Your task to perform on an android device: Show me popular games on the Play Store Image 0: 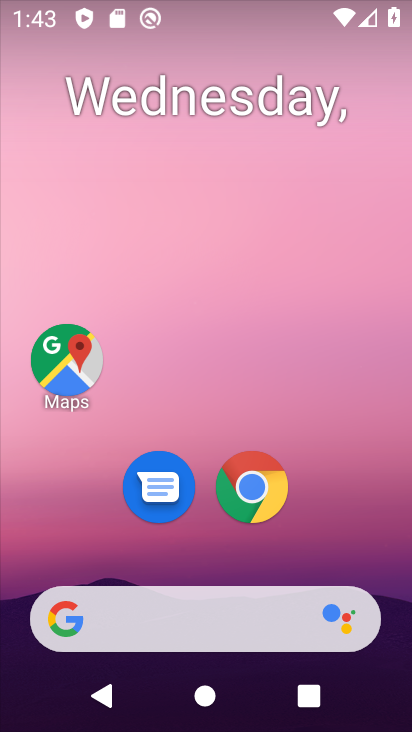
Step 0: drag from (327, 539) to (323, 81)
Your task to perform on an android device: Show me popular games on the Play Store Image 1: 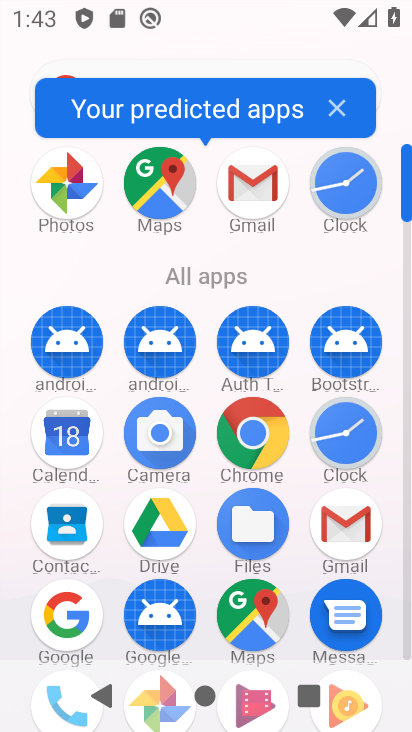
Step 1: drag from (298, 609) to (291, 191)
Your task to perform on an android device: Show me popular games on the Play Store Image 2: 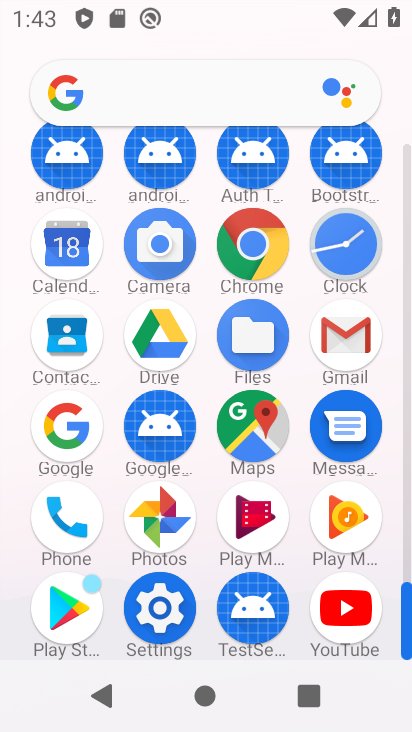
Step 2: click (68, 610)
Your task to perform on an android device: Show me popular games on the Play Store Image 3: 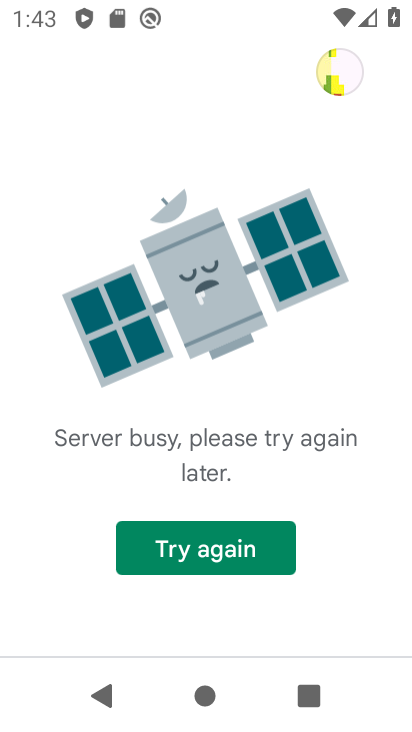
Step 3: task complete